Your task to perform on an android device: read, delete, or share a saved page in the chrome app Image 0: 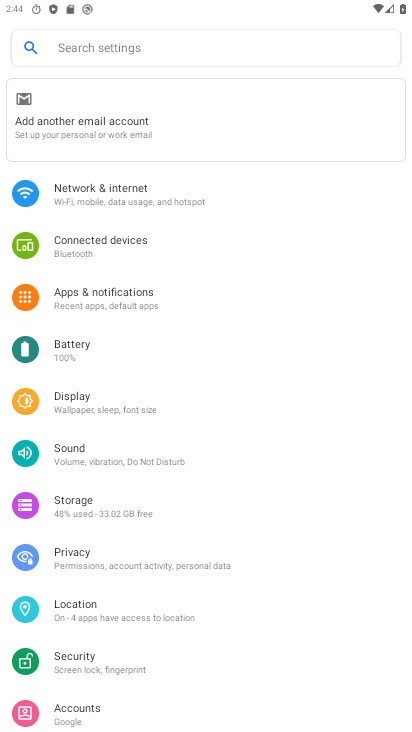
Step 0: press home button
Your task to perform on an android device: read, delete, or share a saved page in the chrome app Image 1: 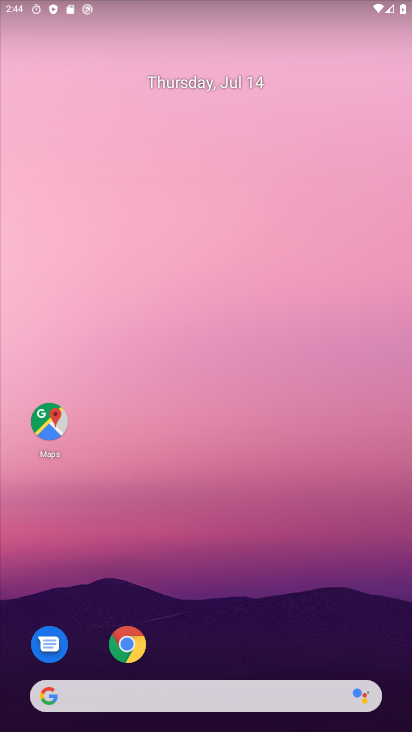
Step 1: click (125, 629)
Your task to perform on an android device: read, delete, or share a saved page in the chrome app Image 2: 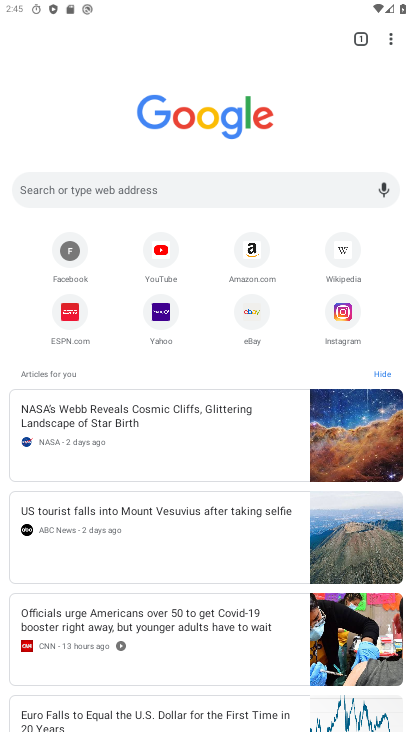
Step 2: click (390, 37)
Your task to perform on an android device: read, delete, or share a saved page in the chrome app Image 3: 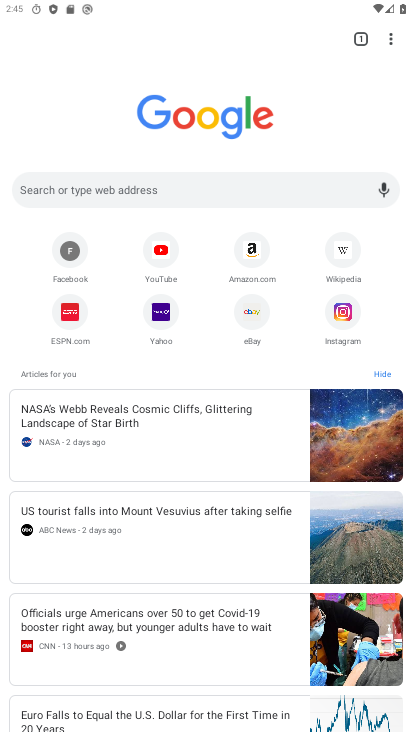
Step 3: task complete